Your task to perform on an android device: Open Youtube and go to "Your channel" Image 0: 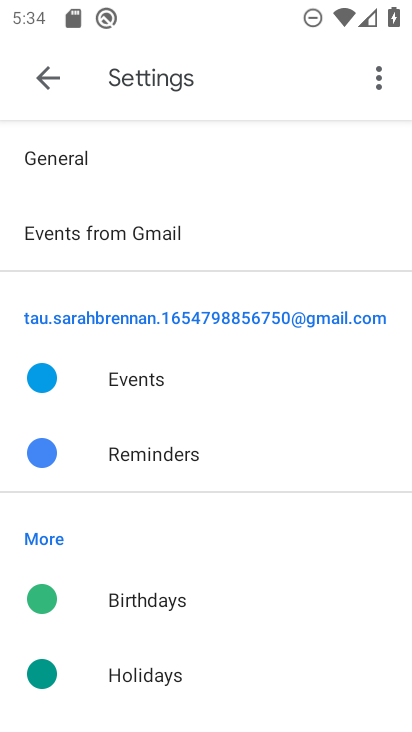
Step 0: press back button
Your task to perform on an android device: Open Youtube and go to "Your channel" Image 1: 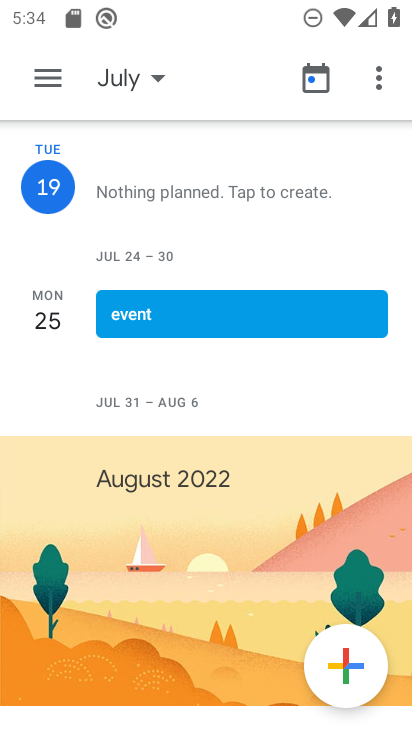
Step 1: press home button
Your task to perform on an android device: Open Youtube and go to "Your channel" Image 2: 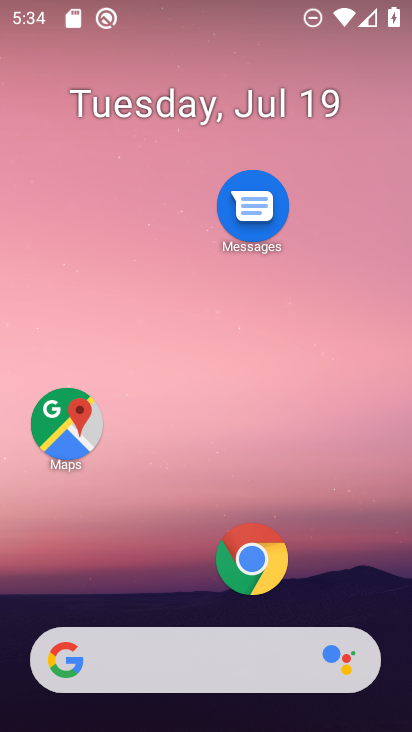
Step 2: drag from (135, 605) to (241, 24)
Your task to perform on an android device: Open Youtube and go to "Your channel" Image 3: 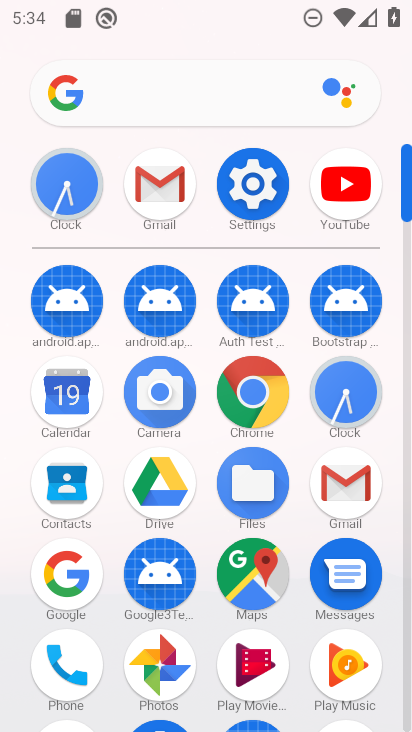
Step 3: click (344, 185)
Your task to perform on an android device: Open Youtube and go to "Your channel" Image 4: 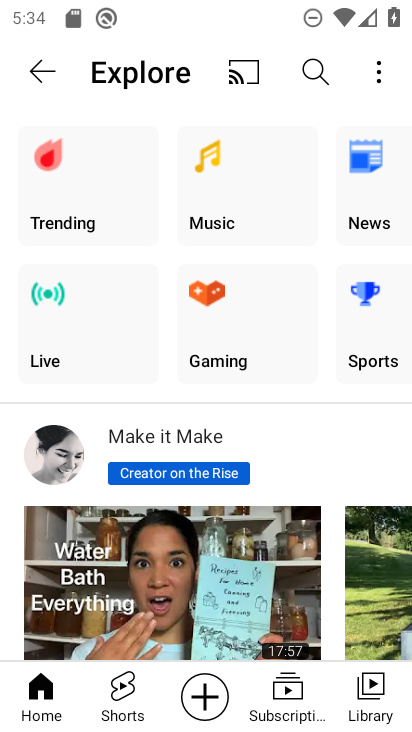
Step 4: click (368, 709)
Your task to perform on an android device: Open Youtube and go to "Your channel" Image 5: 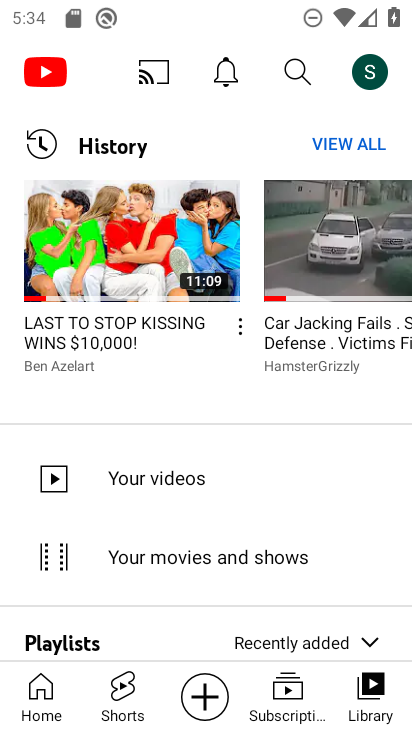
Step 5: click (372, 75)
Your task to perform on an android device: Open Youtube and go to "Your channel" Image 6: 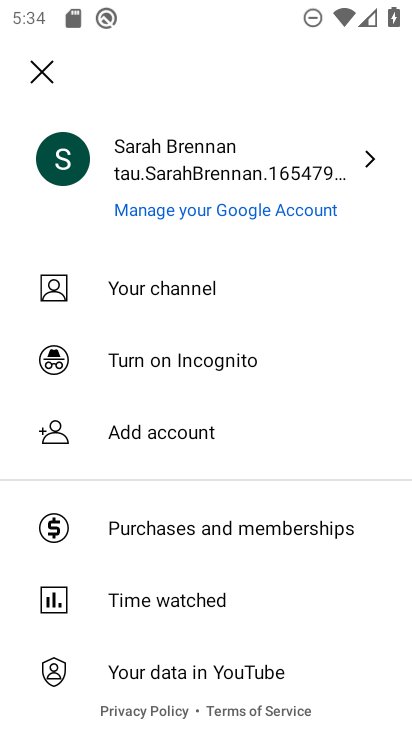
Step 6: click (116, 288)
Your task to perform on an android device: Open Youtube and go to "Your channel" Image 7: 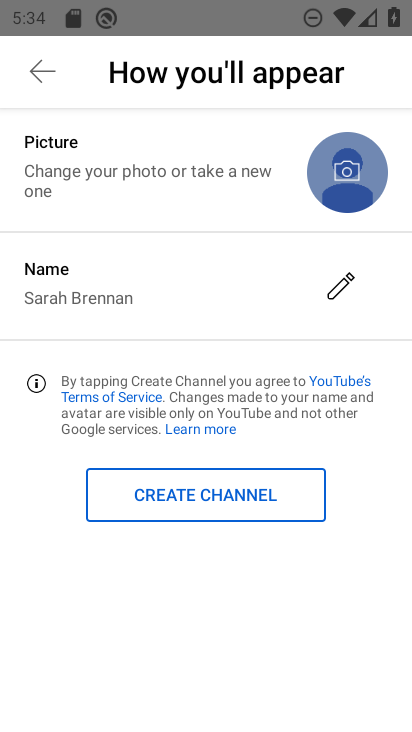
Step 7: task complete